Your task to perform on an android device: Open the map Image 0: 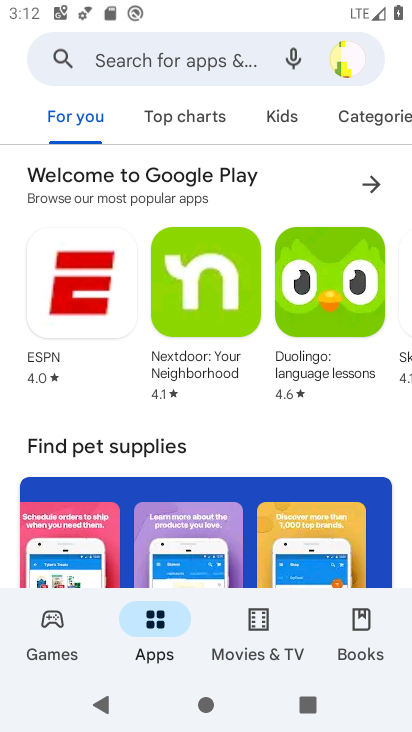
Step 0: press home button
Your task to perform on an android device: Open the map Image 1: 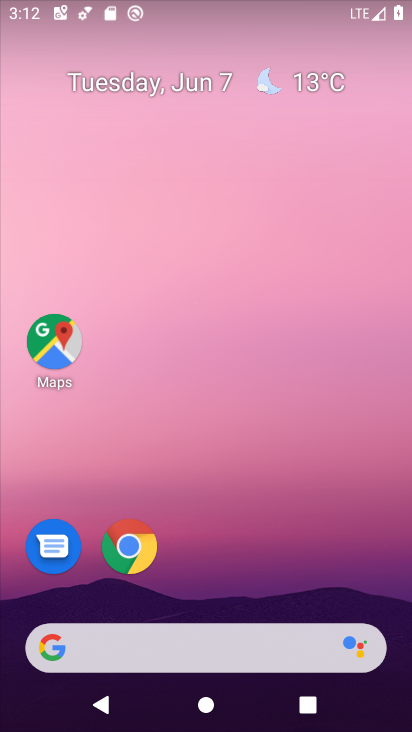
Step 1: drag from (304, 303) to (298, 185)
Your task to perform on an android device: Open the map Image 2: 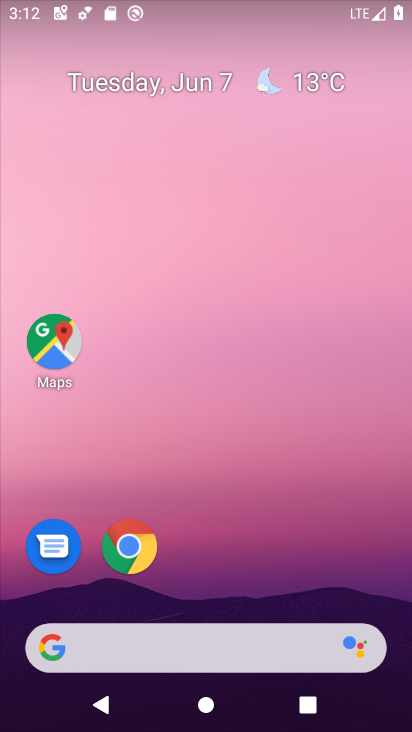
Step 2: drag from (313, 543) to (279, 161)
Your task to perform on an android device: Open the map Image 3: 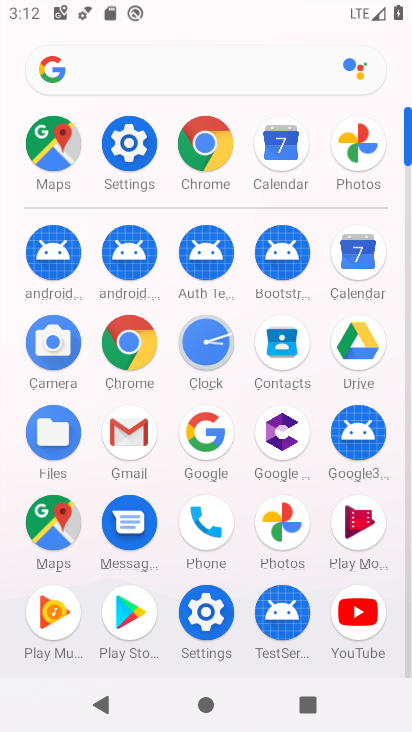
Step 3: click (48, 521)
Your task to perform on an android device: Open the map Image 4: 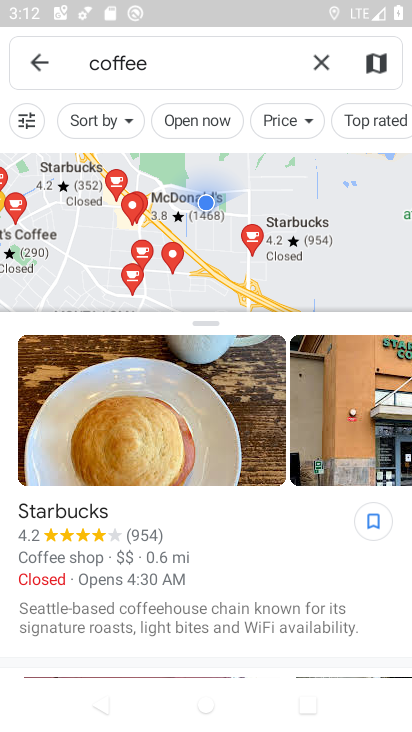
Step 4: task complete